Your task to perform on an android device: move an email to a new category in the gmail app Image 0: 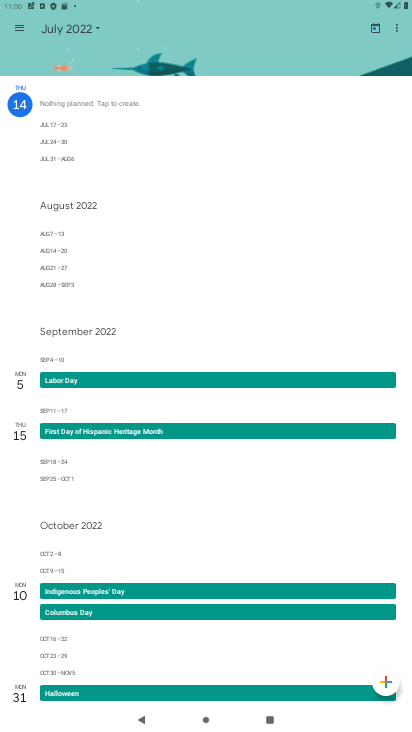
Step 0: press home button
Your task to perform on an android device: move an email to a new category in the gmail app Image 1: 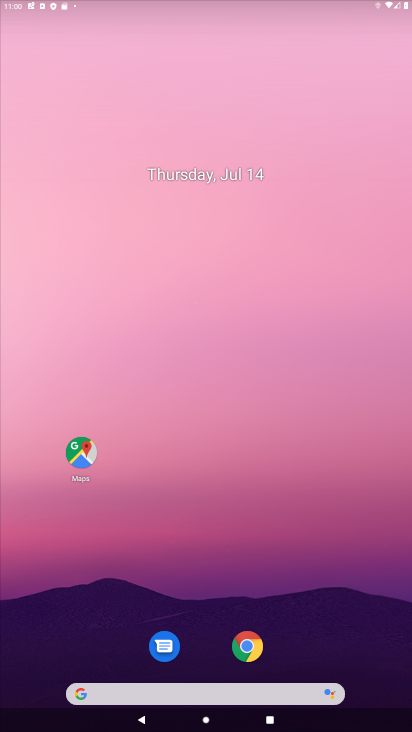
Step 1: drag from (209, 618) to (250, 121)
Your task to perform on an android device: move an email to a new category in the gmail app Image 2: 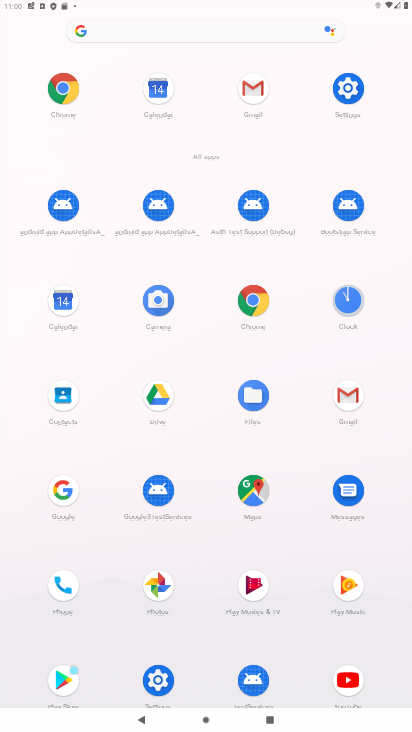
Step 2: click (249, 111)
Your task to perform on an android device: move an email to a new category in the gmail app Image 3: 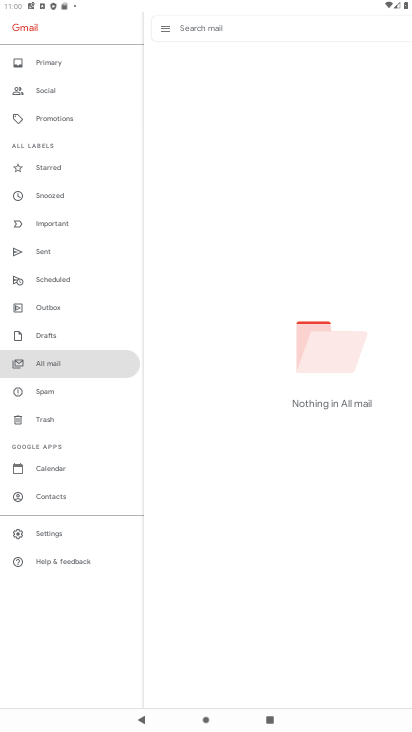
Step 3: task complete